Your task to perform on an android device: open a new tab in the chrome app Image 0: 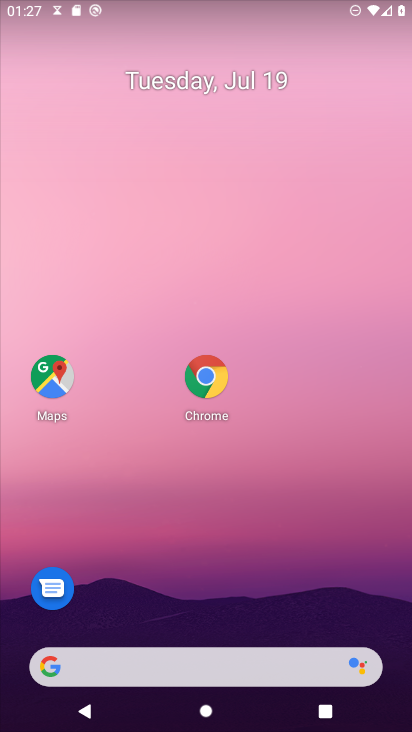
Step 0: click (192, 379)
Your task to perform on an android device: open a new tab in the chrome app Image 1: 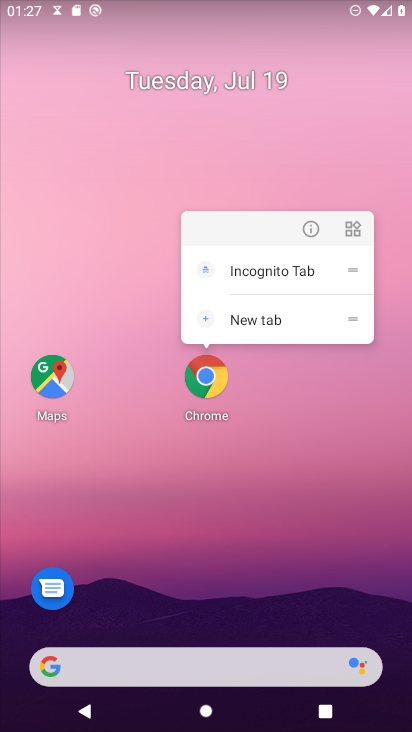
Step 1: click (247, 536)
Your task to perform on an android device: open a new tab in the chrome app Image 2: 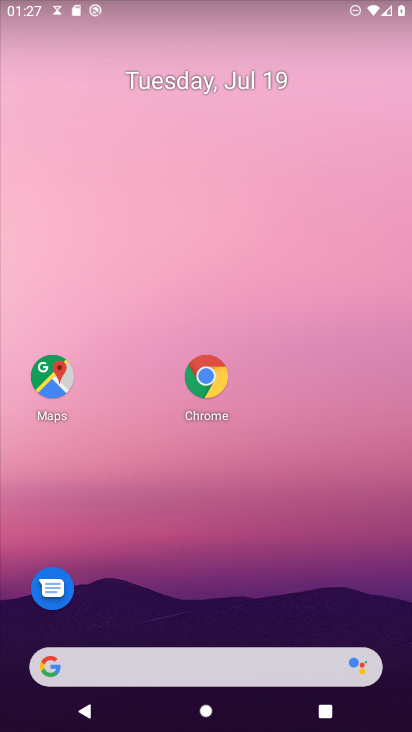
Step 2: drag from (244, 619) to (276, 17)
Your task to perform on an android device: open a new tab in the chrome app Image 3: 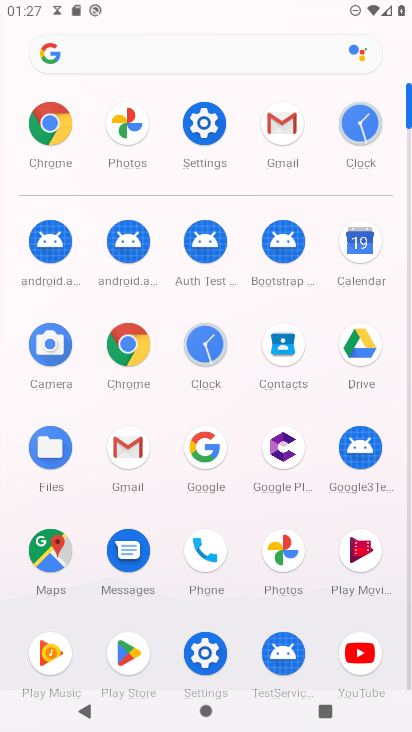
Step 3: click (50, 122)
Your task to perform on an android device: open a new tab in the chrome app Image 4: 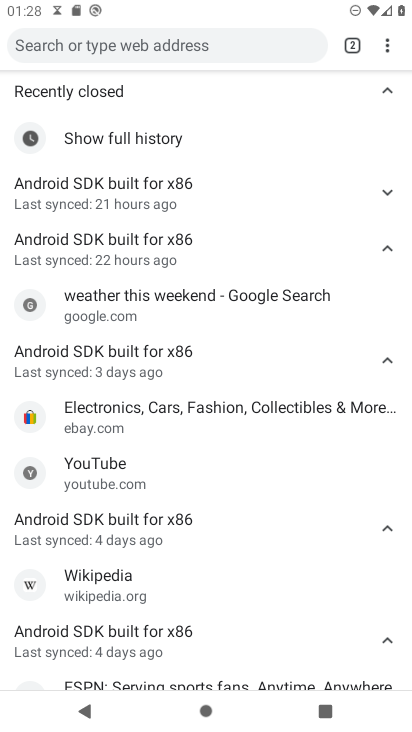
Step 4: click (352, 45)
Your task to perform on an android device: open a new tab in the chrome app Image 5: 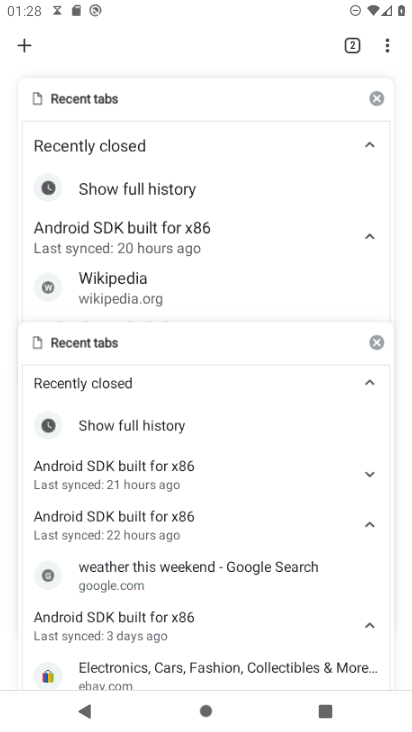
Step 5: click (21, 49)
Your task to perform on an android device: open a new tab in the chrome app Image 6: 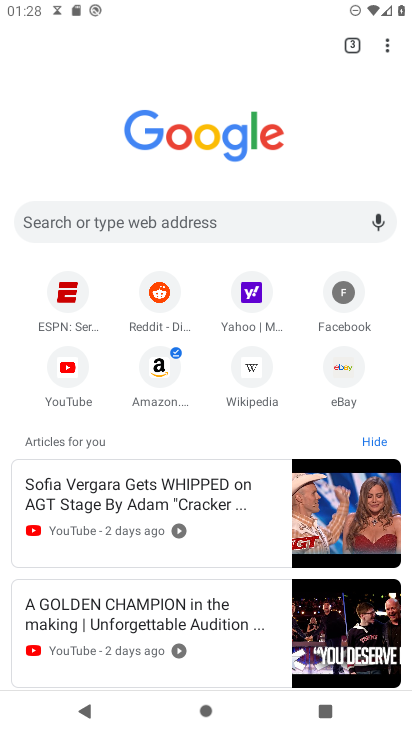
Step 6: task complete